Your task to perform on an android device: turn off notifications in google photos Image 0: 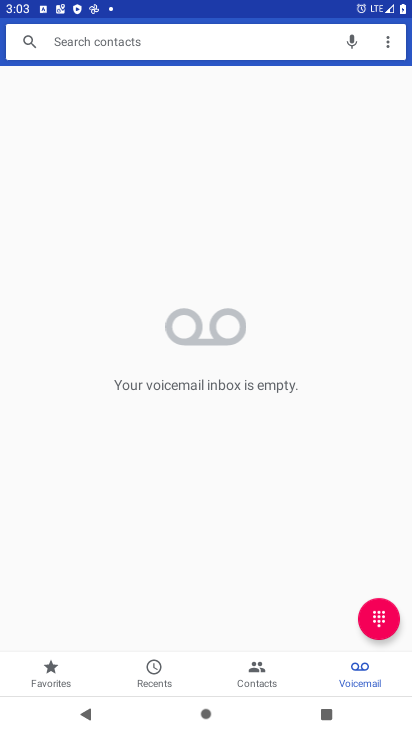
Step 0: press home button
Your task to perform on an android device: turn off notifications in google photos Image 1: 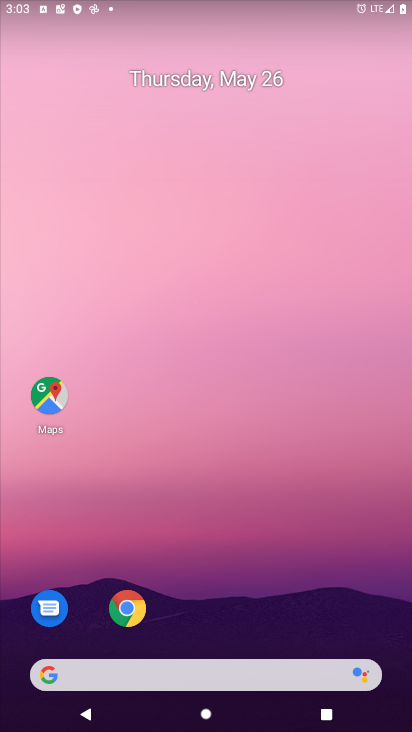
Step 1: drag from (343, 616) to (289, 88)
Your task to perform on an android device: turn off notifications in google photos Image 2: 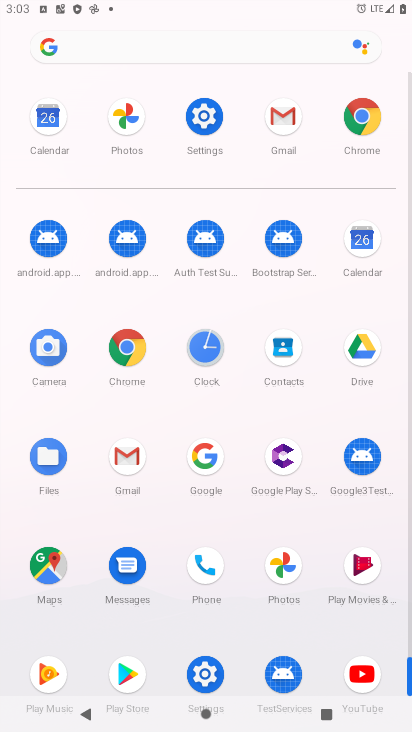
Step 2: click (285, 565)
Your task to perform on an android device: turn off notifications in google photos Image 3: 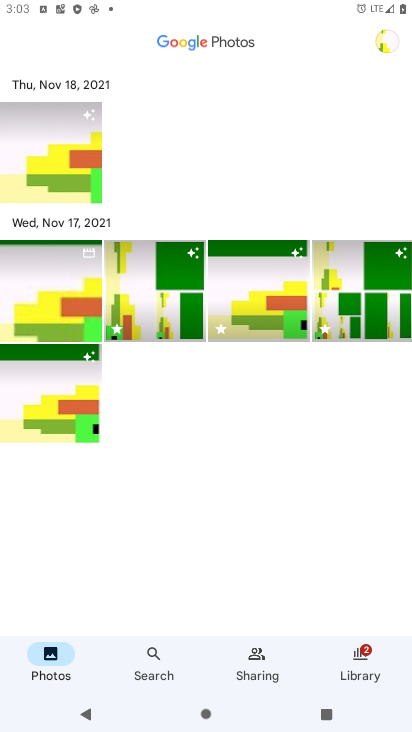
Step 3: click (390, 43)
Your task to perform on an android device: turn off notifications in google photos Image 4: 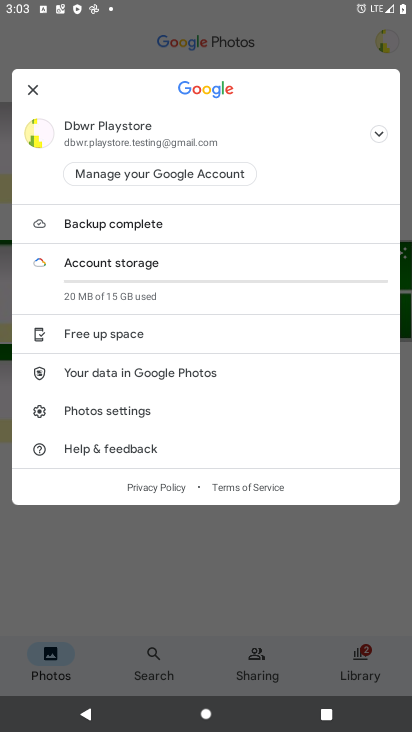
Step 4: click (93, 404)
Your task to perform on an android device: turn off notifications in google photos Image 5: 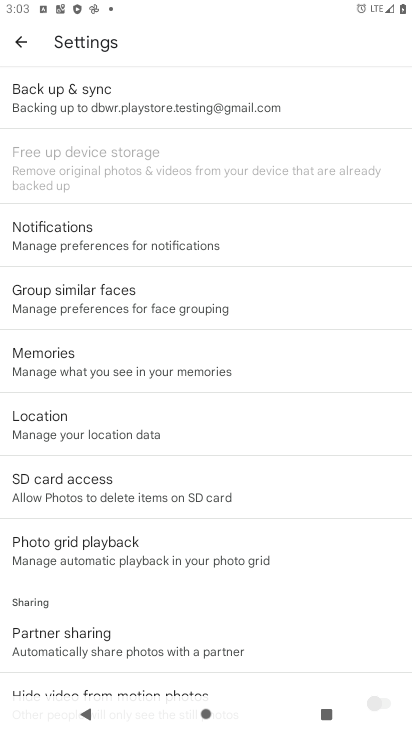
Step 5: click (80, 255)
Your task to perform on an android device: turn off notifications in google photos Image 6: 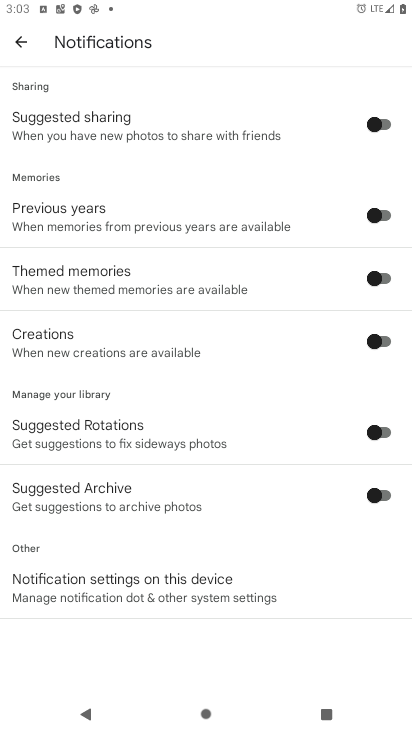
Step 6: click (115, 568)
Your task to perform on an android device: turn off notifications in google photos Image 7: 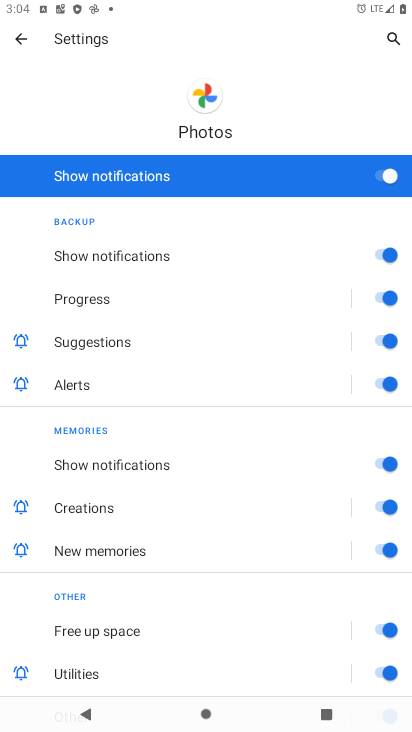
Step 7: click (381, 172)
Your task to perform on an android device: turn off notifications in google photos Image 8: 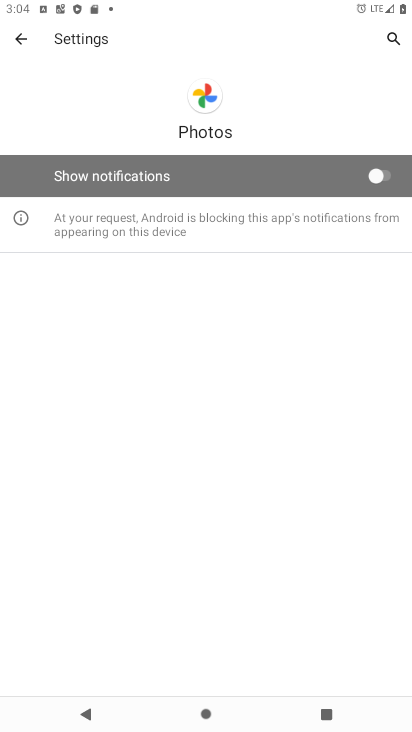
Step 8: task complete